Your task to perform on an android device: Open privacy settings Image 0: 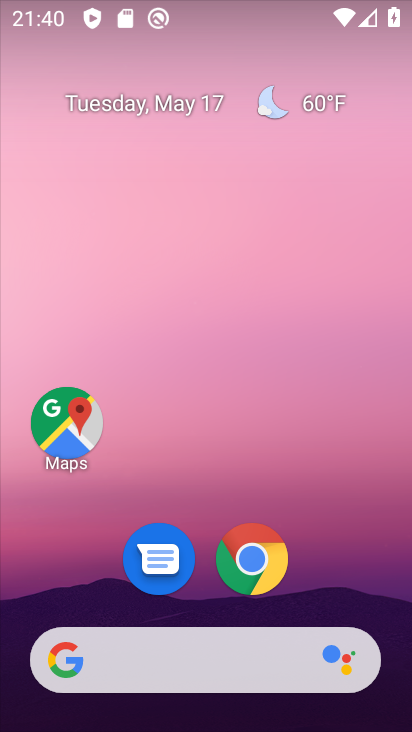
Step 0: drag from (340, 521) to (371, 168)
Your task to perform on an android device: Open privacy settings Image 1: 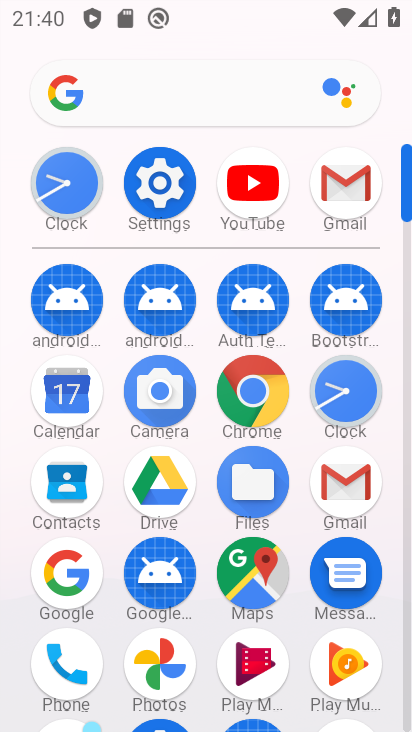
Step 1: click (167, 181)
Your task to perform on an android device: Open privacy settings Image 2: 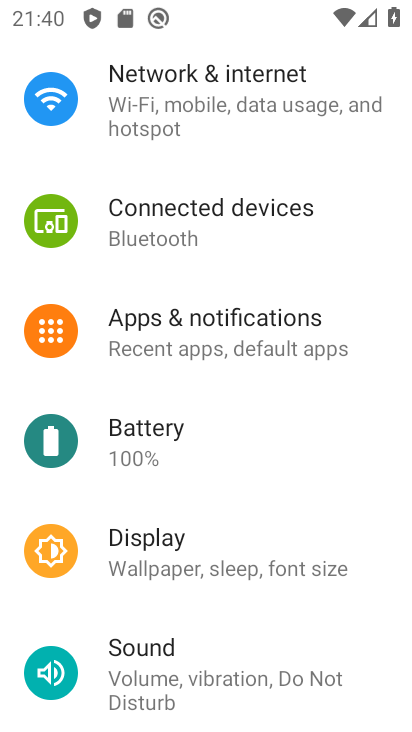
Step 2: drag from (267, 620) to (322, 210)
Your task to perform on an android device: Open privacy settings Image 3: 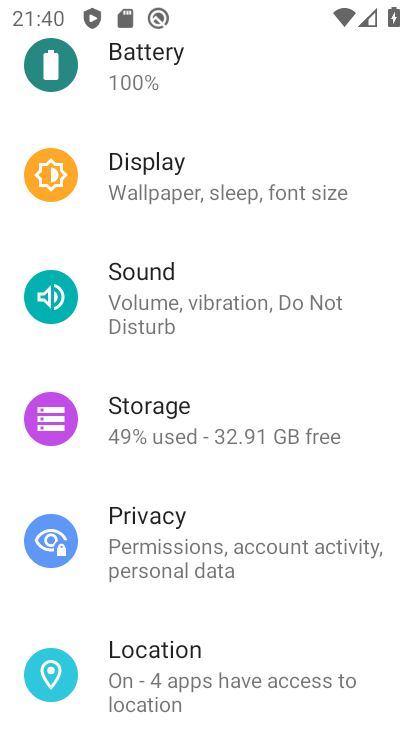
Step 3: click (225, 527)
Your task to perform on an android device: Open privacy settings Image 4: 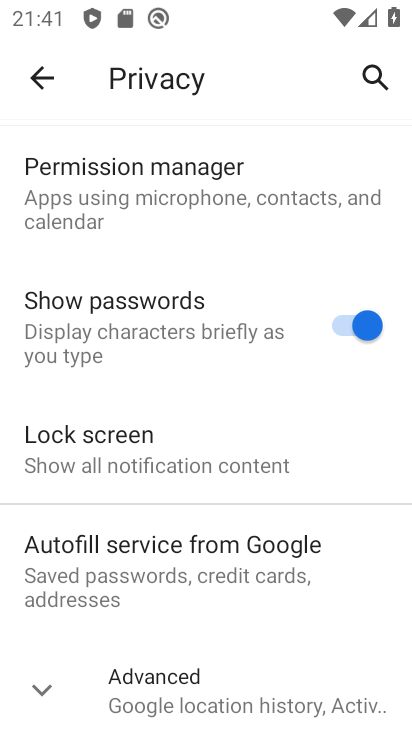
Step 4: task complete